Your task to perform on an android device: turn notification dots off Image 0: 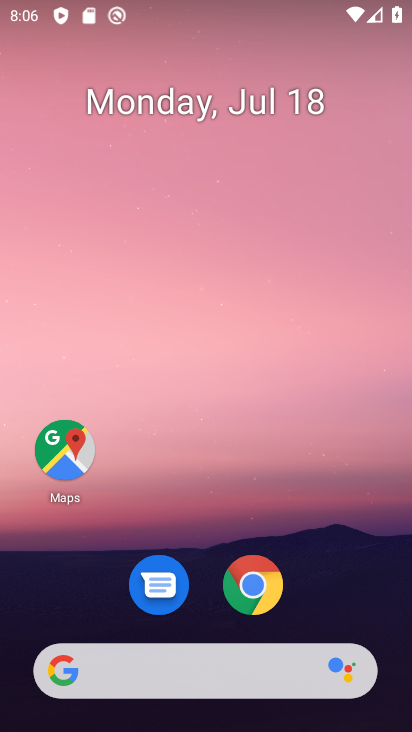
Step 0: drag from (220, 646) to (351, 137)
Your task to perform on an android device: turn notification dots off Image 1: 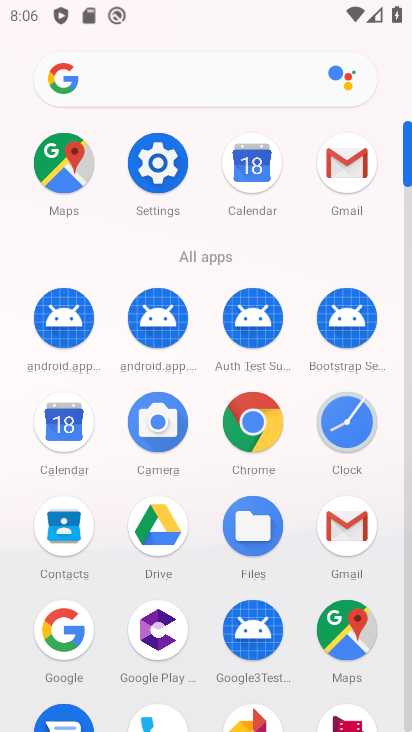
Step 1: click (151, 164)
Your task to perform on an android device: turn notification dots off Image 2: 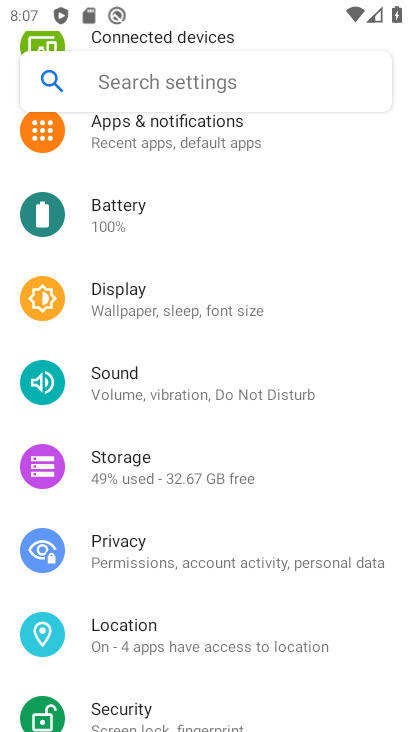
Step 2: click (215, 135)
Your task to perform on an android device: turn notification dots off Image 3: 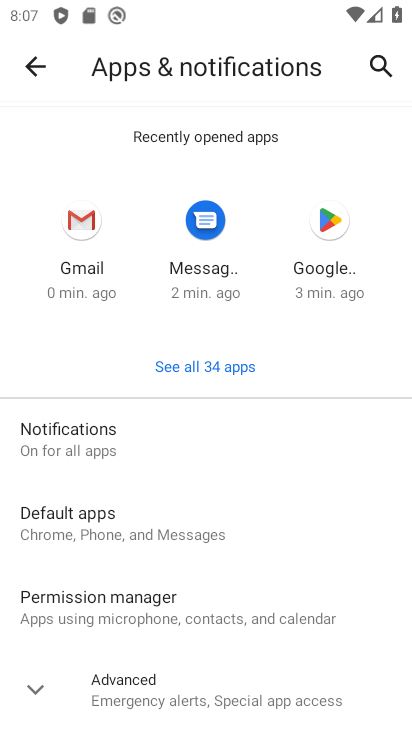
Step 3: drag from (293, 567) to (262, 514)
Your task to perform on an android device: turn notification dots off Image 4: 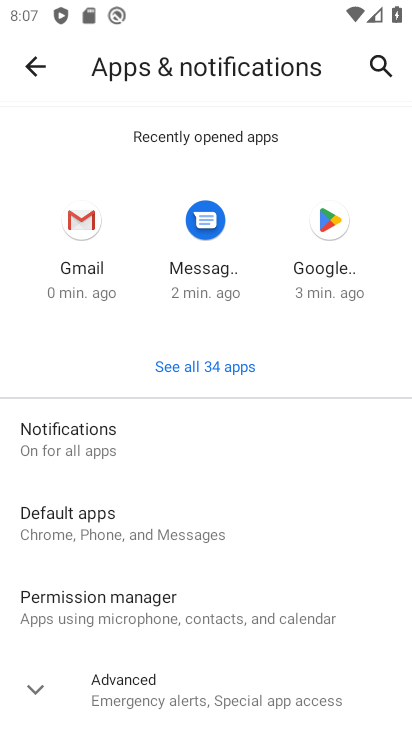
Step 4: click (98, 445)
Your task to perform on an android device: turn notification dots off Image 5: 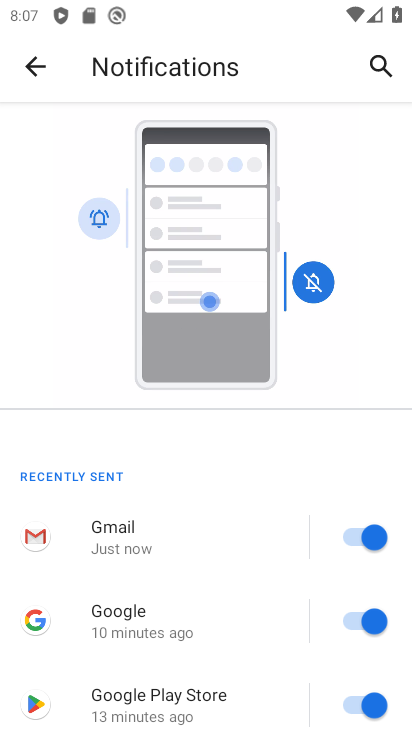
Step 5: drag from (227, 588) to (364, 220)
Your task to perform on an android device: turn notification dots off Image 6: 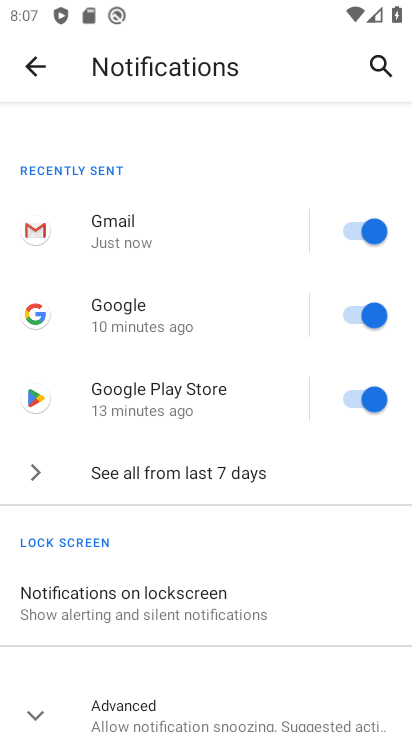
Step 6: drag from (254, 578) to (357, 116)
Your task to perform on an android device: turn notification dots off Image 7: 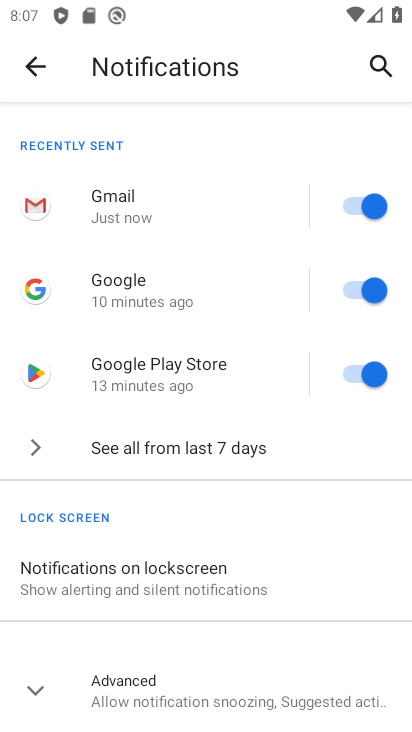
Step 7: click (133, 683)
Your task to perform on an android device: turn notification dots off Image 8: 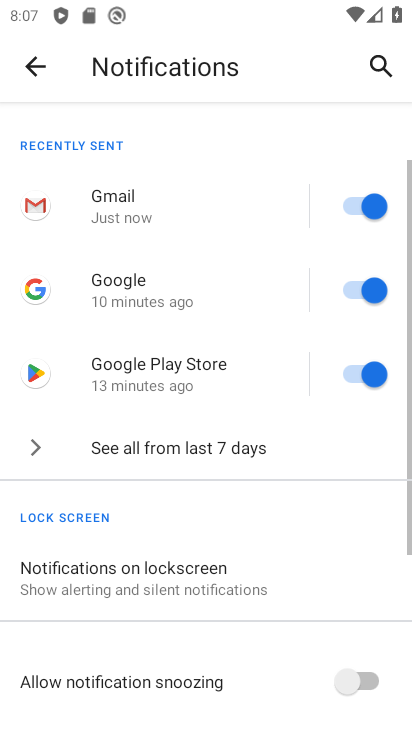
Step 8: drag from (181, 630) to (259, 241)
Your task to perform on an android device: turn notification dots off Image 9: 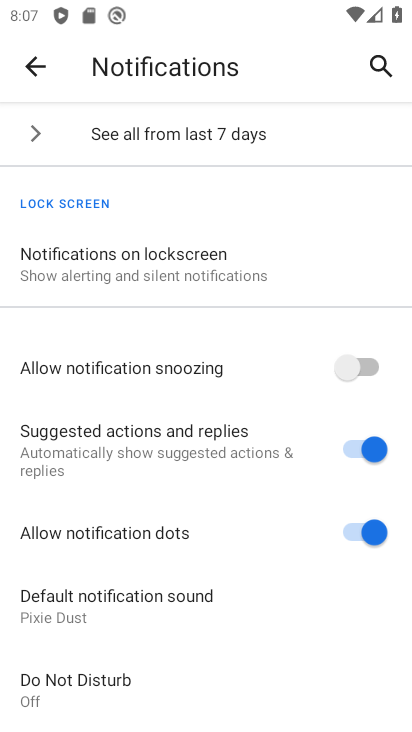
Step 9: click (360, 531)
Your task to perform on an android device: turn notification dots off Image 10: 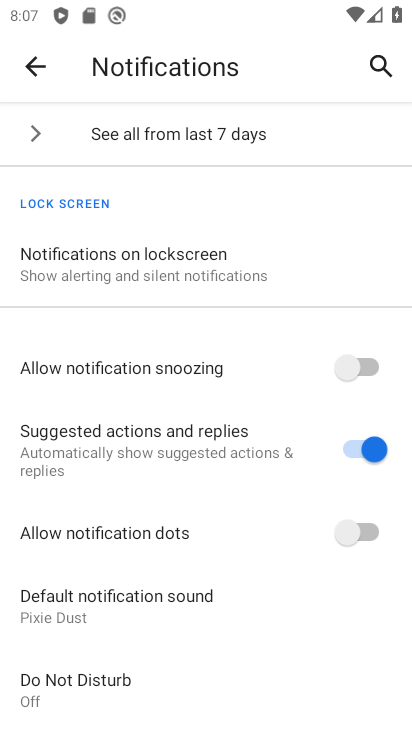
Step 10: task complete